Your task to perform on an android device: turn pop-ups off in chrome Image 0: 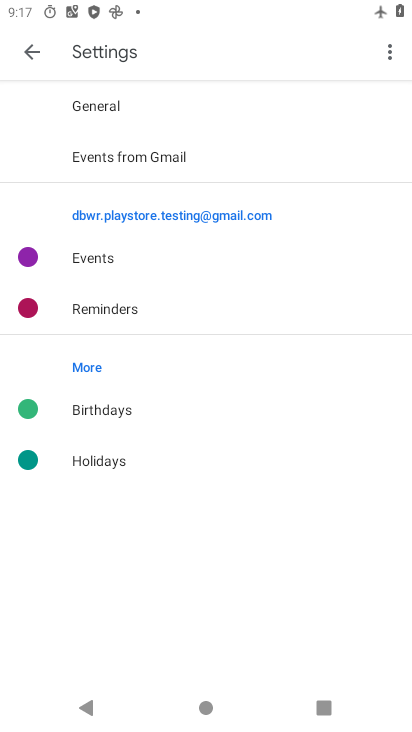
Step 0: press home button
Your task to perform on an android device: turn pop-ups off in chrome Image 1: 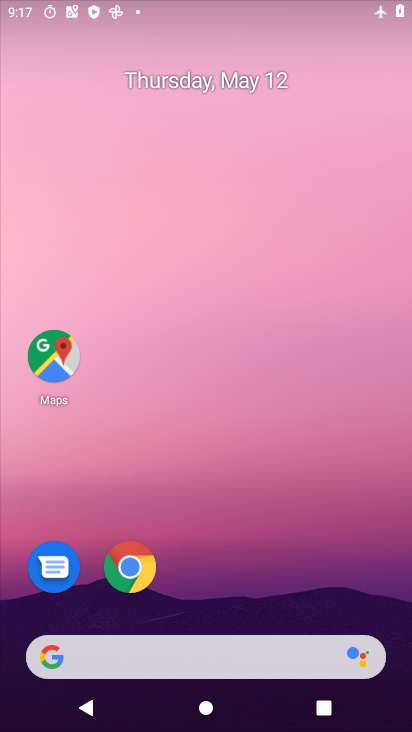
Step 1: drag from (190, 643) to (190, 272)
Your task to perform on an android device: turn pop-ups off in chrome Image 2: 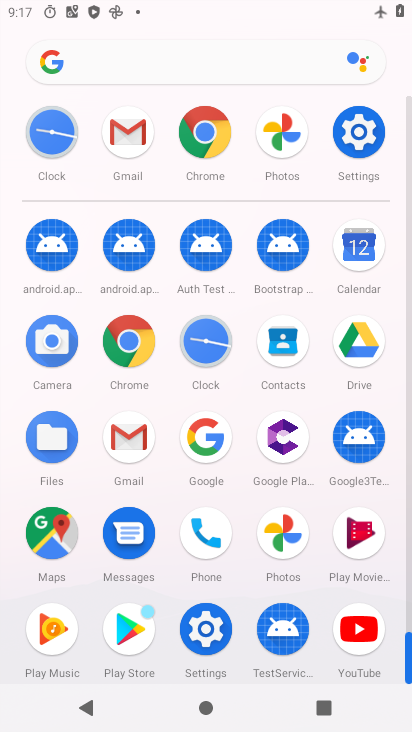
Step 2: click (216, 136)
Your task to perform on an android device: turn pop-ups off in chrome Image 3: 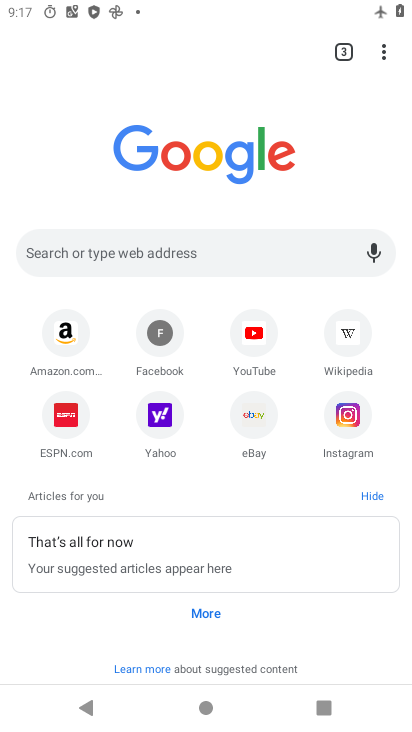
Step 3: click (389, 61)
Your task to perform on an android device: turn pop-ups off in chrome Image 4: 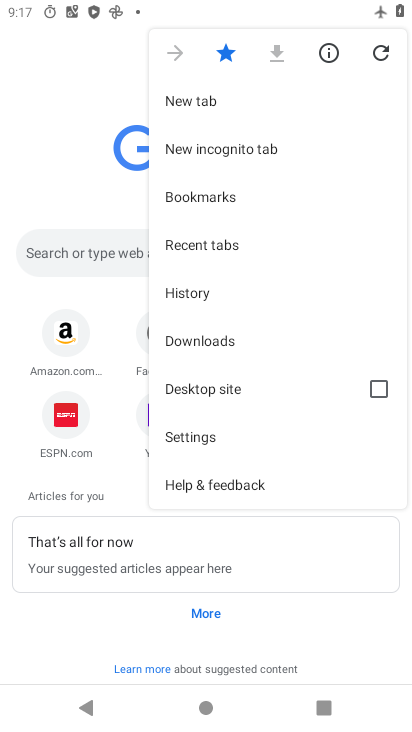
Step 4: drag from (234, 423) to (234, 225)
Your task to perform on an android device: turn pop-ups off in chrome Image 5: 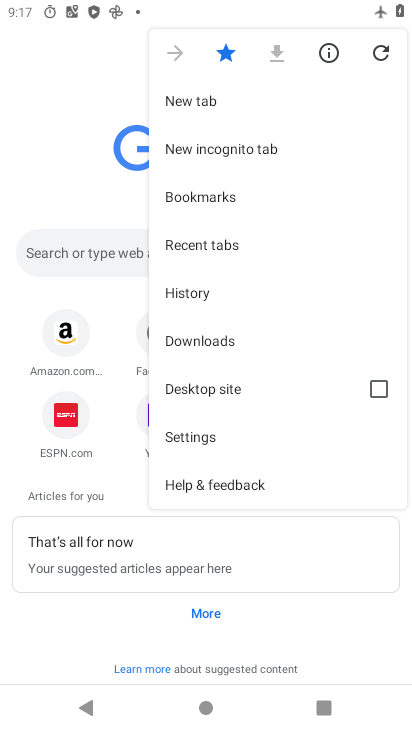
Step 5: click (215, 436)
Your task to perform on an android device: turn pop-ups off in chrome Image 6: 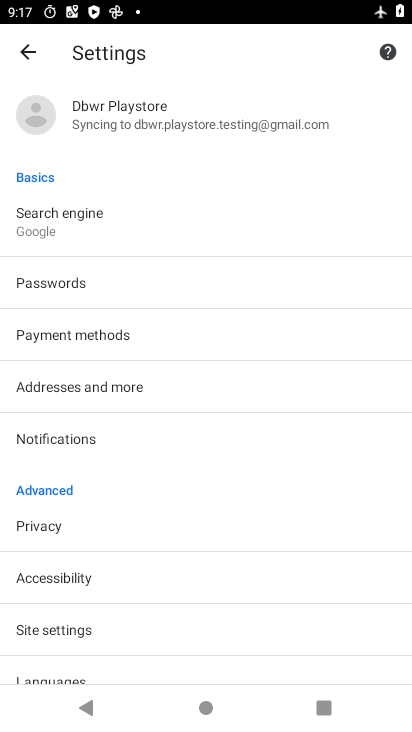
Step 6: drag from (210, 575) to (222, 266)
Your task to perform on an android device: turn pop-ups off in chrome Image 7: 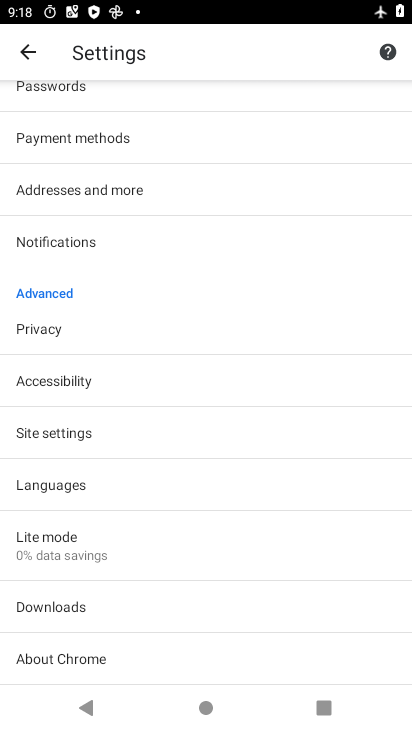
Step 7: click (103, 438)
Your task to perform on an android device: turn pop-ups off in chrome Image 8: 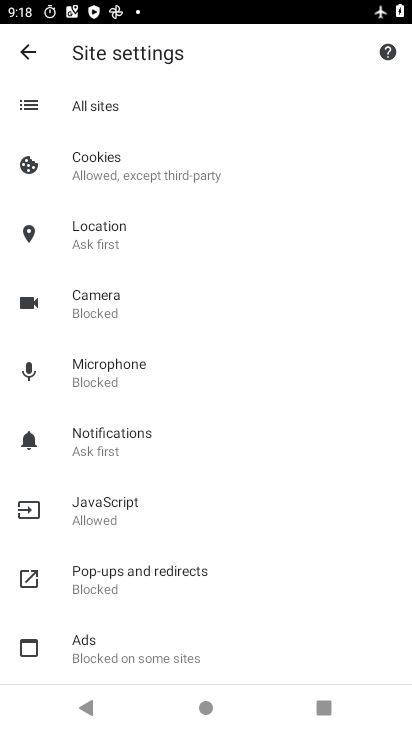
Step 8: click (143, 583)
Your task to perform on an android device: turn pop-ups off in chrome Image 9: 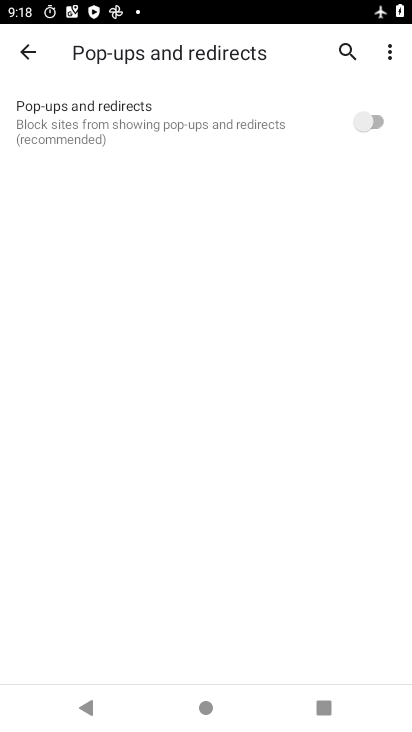
Step 9: task complete